Your task to perform on an android device: Open Maps and search for coffee Image 0: 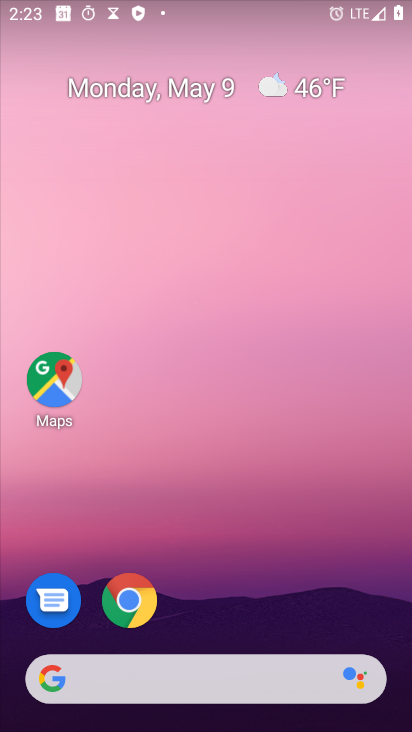
Step 0: drag from (195, 668) to (207, 142)
Your task to perform on an android device: Open Maps and search for coffee Image 1: 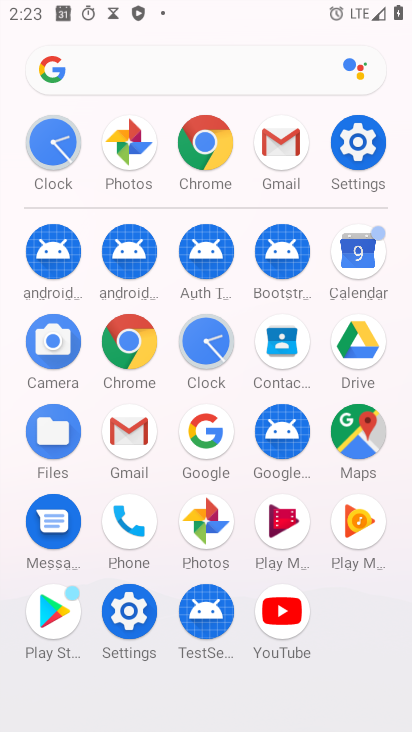
Step 1: click (202, 449)
Your task to perform on an android device: Open Maps and search for coffee Image 2: 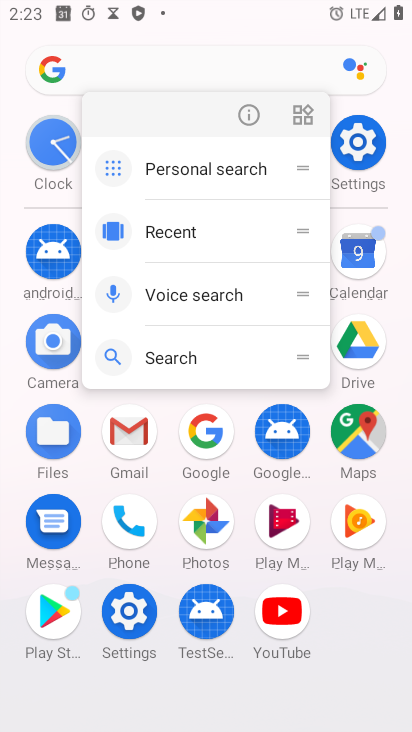
Step 2: click (352, 449)
Your task to perform on an android device: Open Maps and search for coffee Image 3: 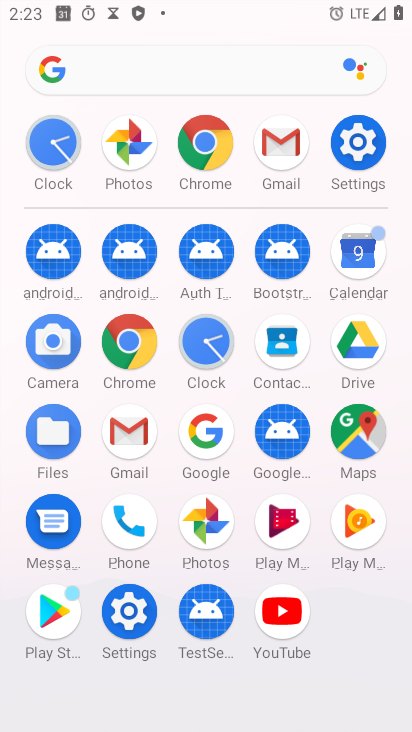
Step 3: click (355, 438)
Your task to perform on an android device: Open Maps and search for coffee Image 4: 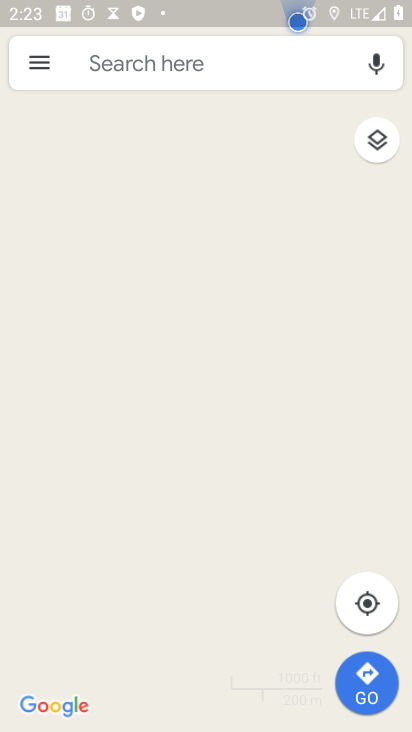
Step 4: click (179, 76)
Your task to perform on an android device: Open Maps and search for coffee Image 5: 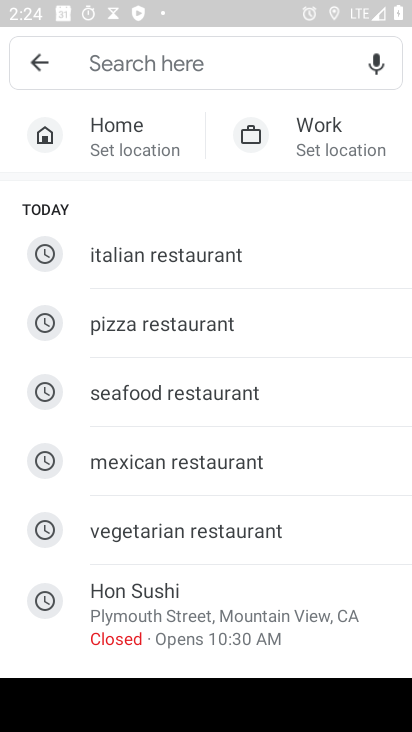
Step 5: type "coffee"
Your task to perform on an android device: Open Maps and search for coffee Image 6: 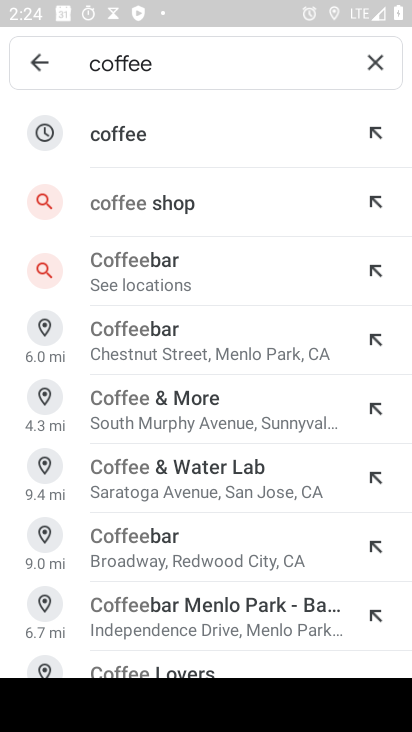
Step 6: task complete